Your task to perform on an android device: Go to calendar. Show me events next week Image 0: 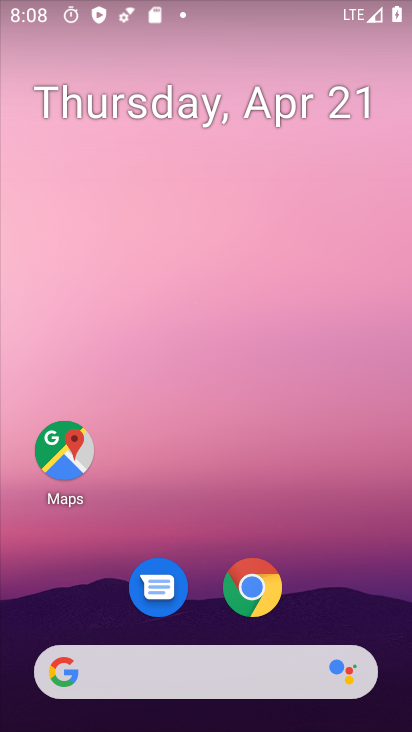
Step 0: click (387, 139)
Your task to perform on an android device: Go to calendar. Show me events next week Image 1: 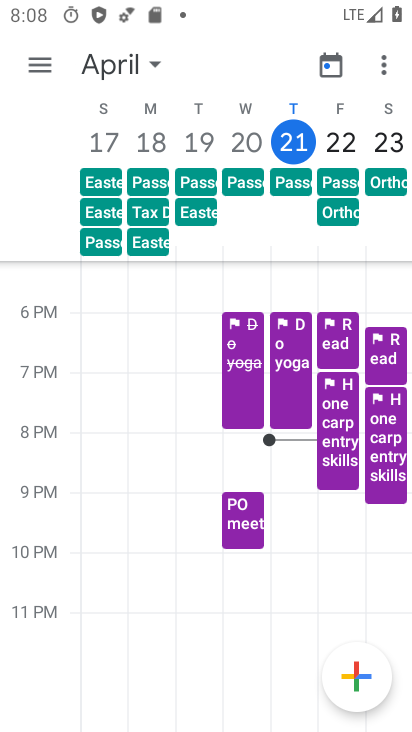
Step 1: click (148, 61)
Your task to perform on an android device: Go to calendar. Show me events next week Image 2: 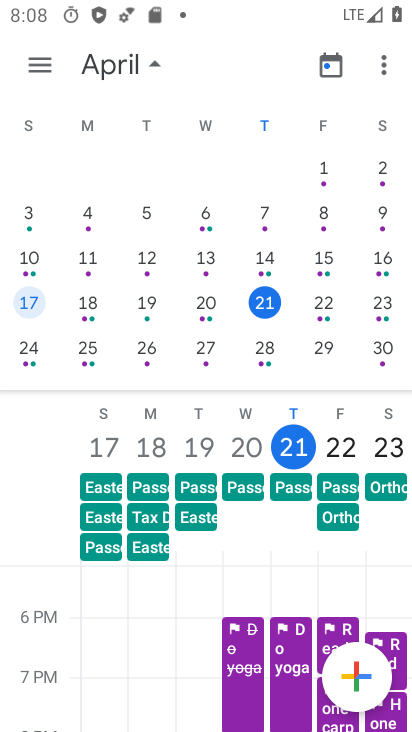
Step 2: click (264, 346)
Your task to perform on an android device: Go to calendar. Show me events next week Image 3: 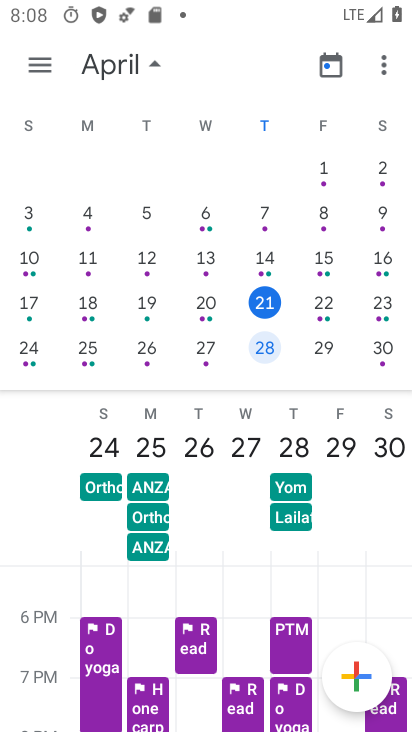
Step 3: click (37, 59)
Your task to perform on an android device: Go to calendar. Show me events next week Image 4: 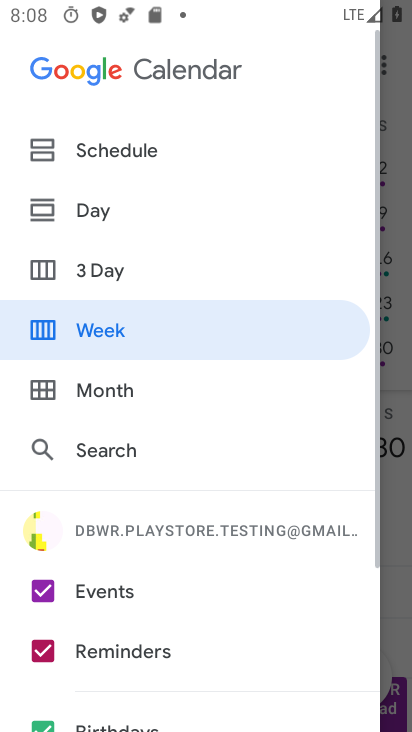
Step 4: click (90, 326)
Your task to perform on an android device: Go to calendar. Show me events next week Image 5: 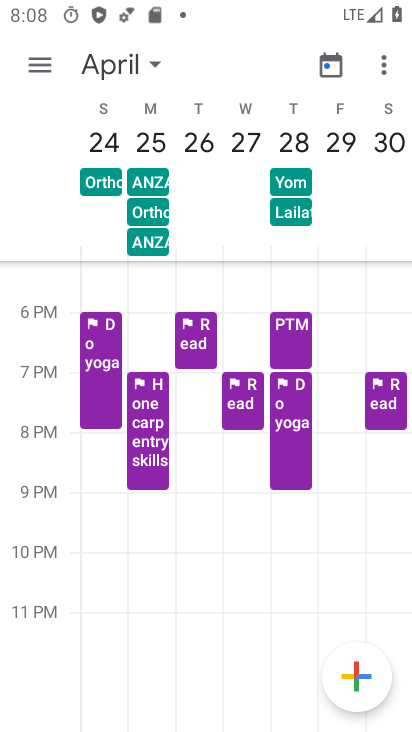
Step 5: task complete